Your task to perform on an android device: Turn on the flashlight Image 0: 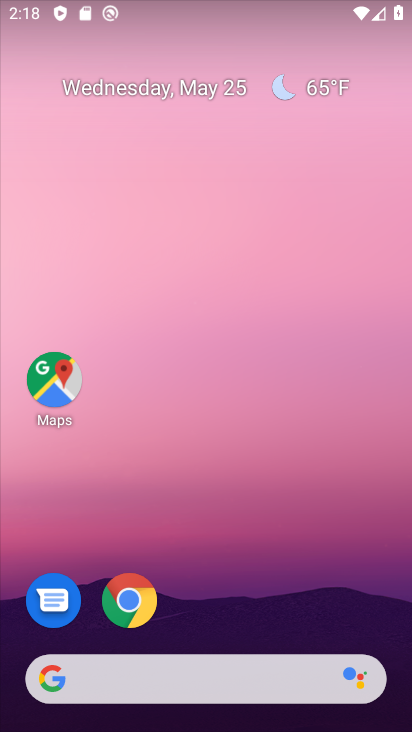
Step 0: drag from (304, 574) to (242, 93)
Your task to perform on an android device: Turn on the flashlight Image 1: 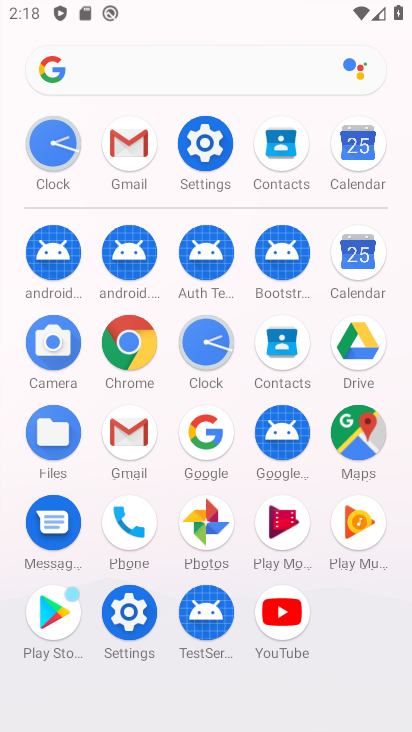
Step 1: click (208, 155)
Your task to perform on an android device: Turn on the flashlight Image 2: 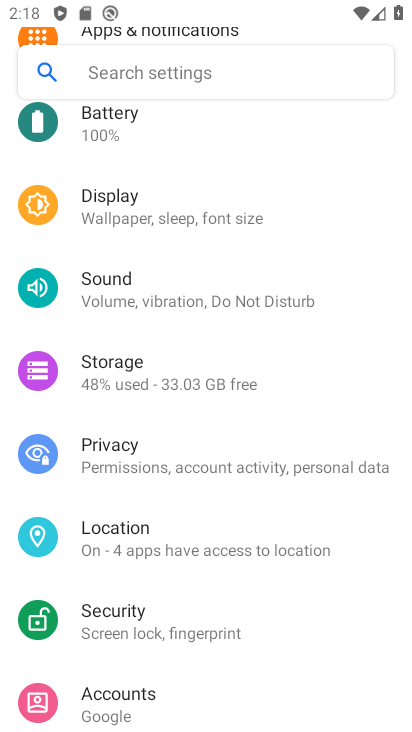
Step 2: click (165, 206)
Your task to perform on an android device: Turn on the flashlight Image 3: 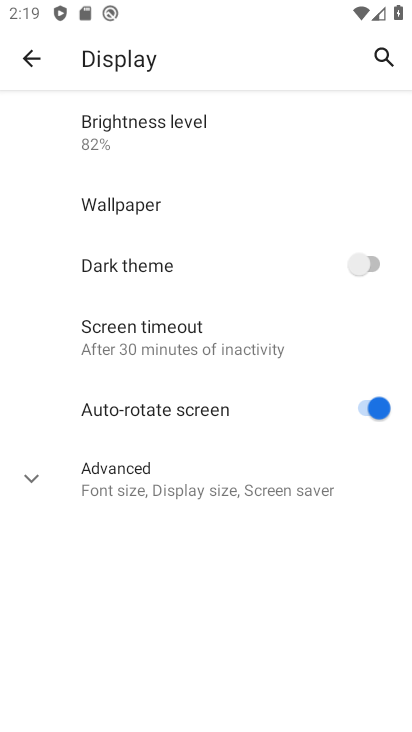
Step 3: task complete